Your task to perform on an android device: Open Reddit.com Image 0: 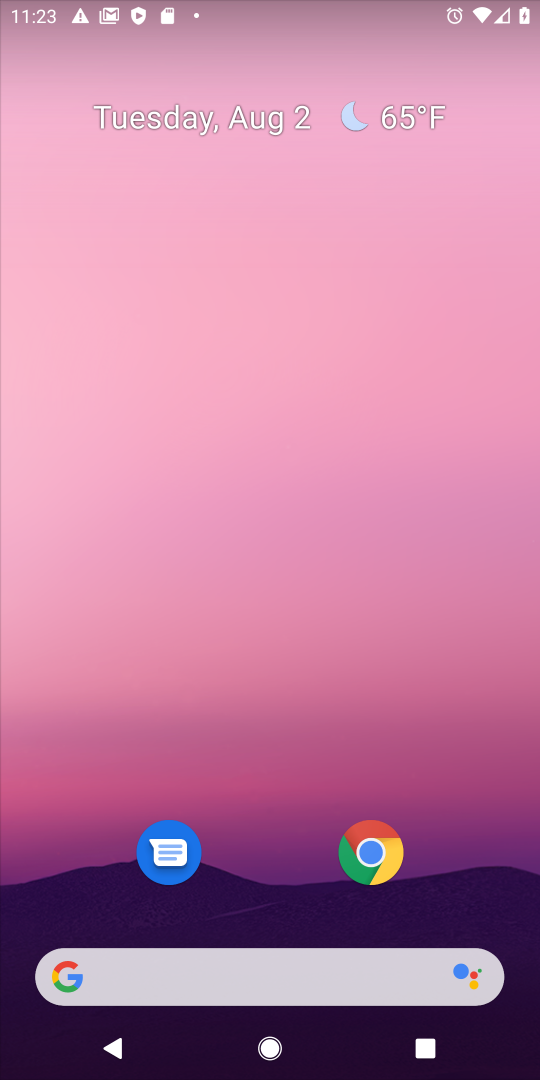
Step 0: click (201, 968)
Your task to perform on an android device: Open Reddit.com Image 1: 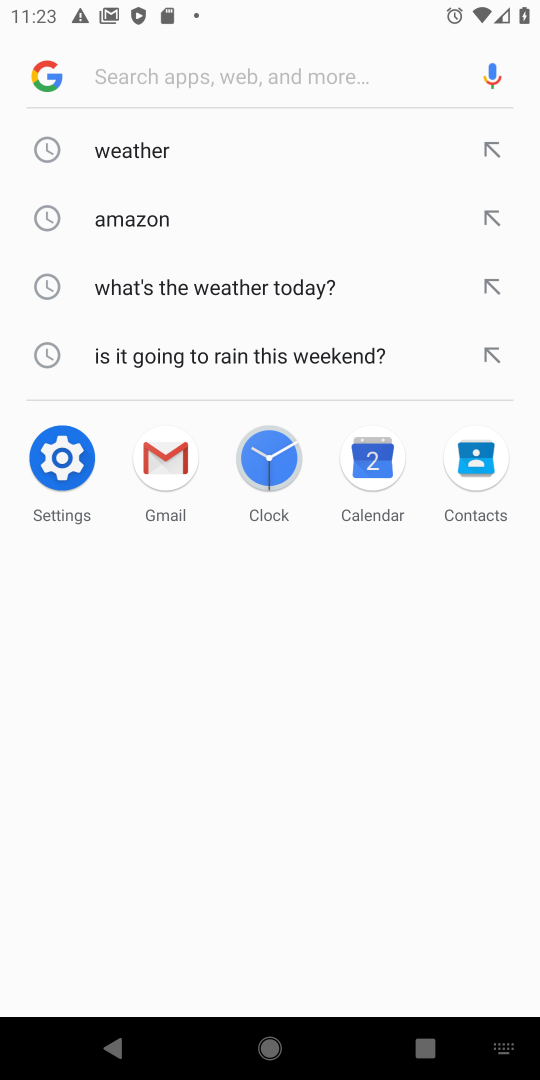
Step 1: type "Reddit.com"
Your task to perform on an android device: Open Reddit.com Image 2: 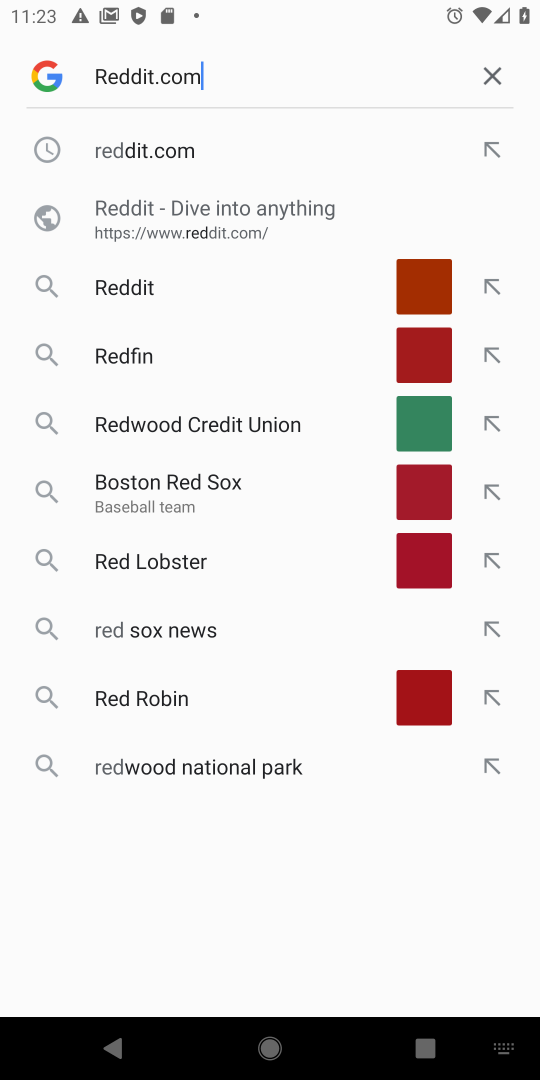
Step 2: type ""
Your task to perform on an android device: Open Reddit.com Image 3: 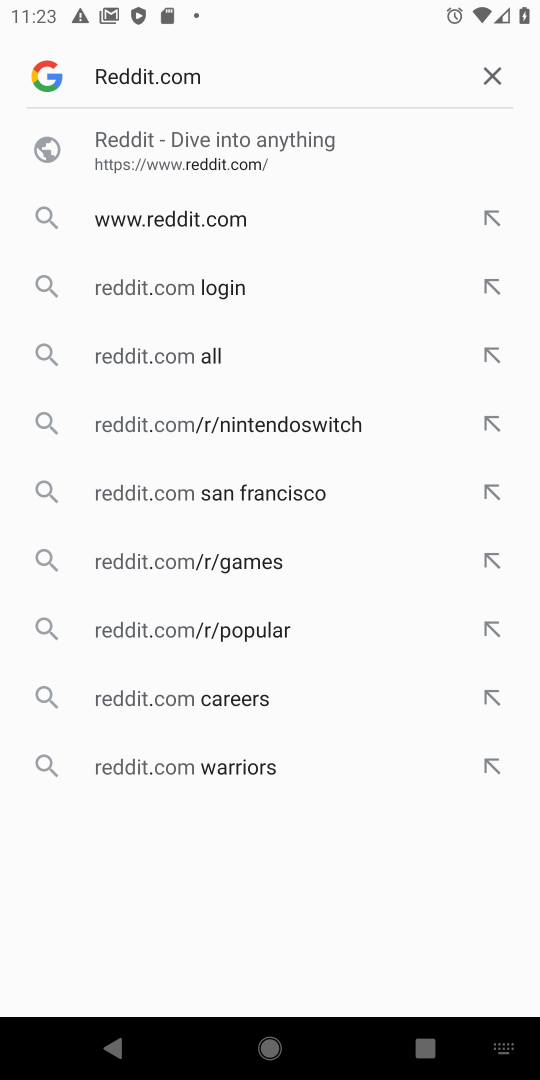
Step 3: click (163, 153)
Your task to perform on an android device: Open Reddit.com Image 4: 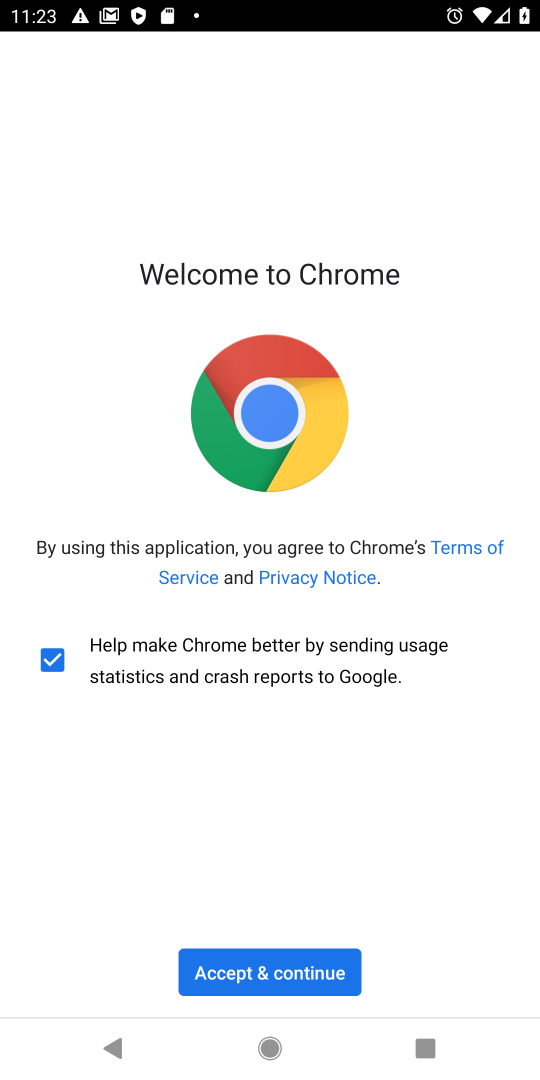
Step 4: click (265, 993)
Your task to perform on an android device: Open Reddit.com Image 5: 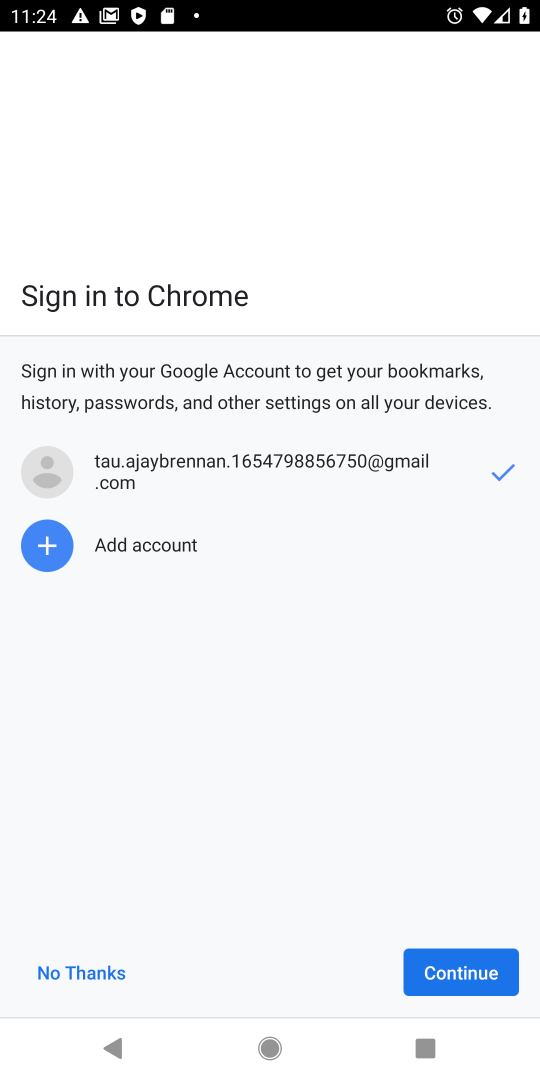
Step 5: click (485, 970)
Your task to perform on an android device: Open Reddit.com Image 6: 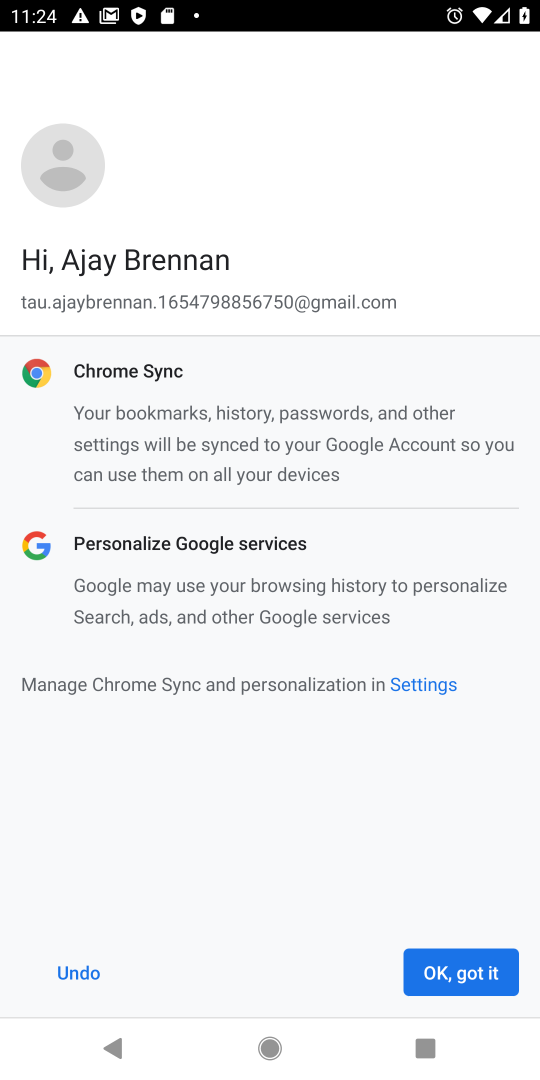
Step 6: click (458, 965)
Your task to perform on an android device: Open Reddit.com Image 7: 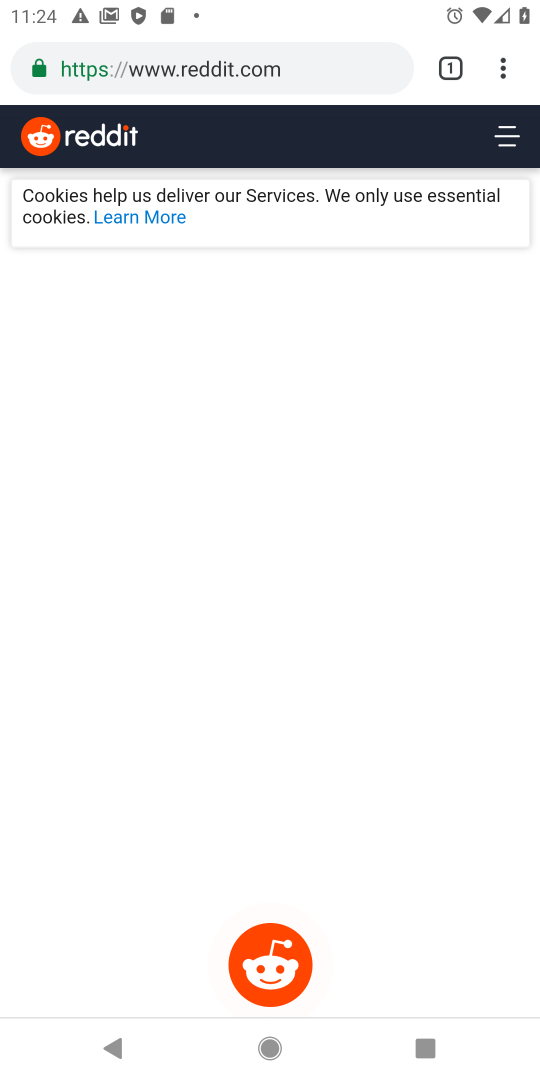
Step 7: task complete